Your task to perform on an android device: create a new album in the google photos Image 0: 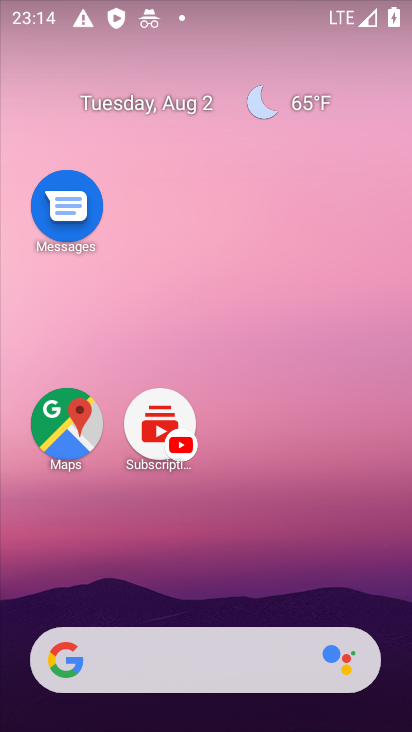
Step 0: drag from (232, 416) to (206, 221)
Your task to perform on an android device: create a new album in the google photos Image 1: 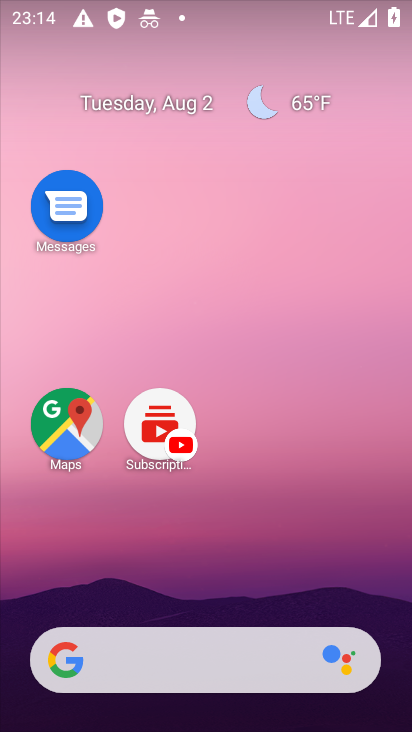
Step 1: drag from (218, 637) to (179, 300)
Your task to perform on an android device: create a new album in the google photos Image 2: 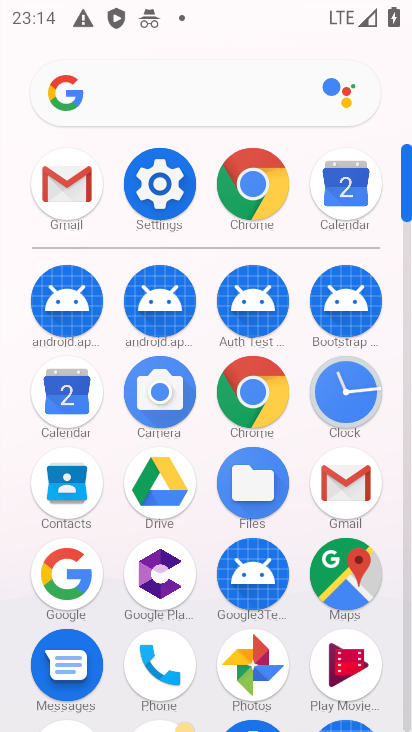
Step 2: click (254, 652)
Your task to perform on an android device: create a new album in the google photos Image 3: 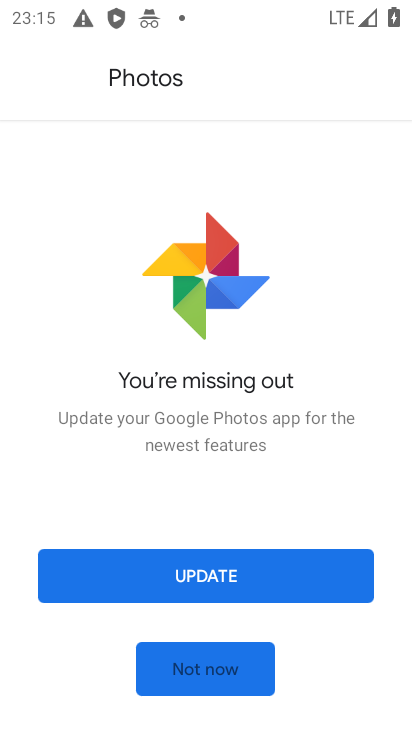
Step 3: click (213, 663)
Your task to perform on an android device: create a new album in the google photos Image 4: 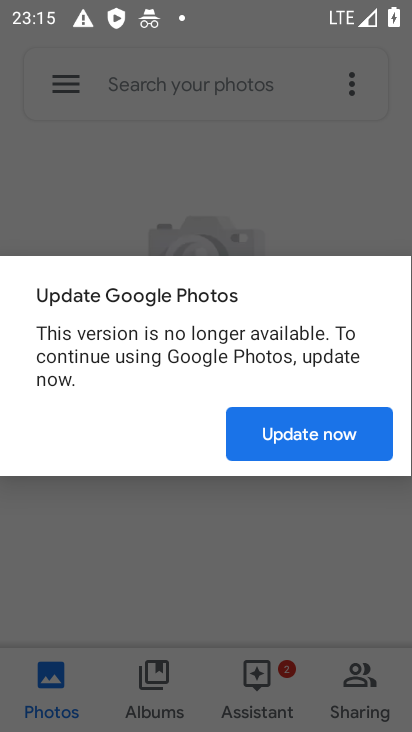
Step 4: click (292, 426)
Your task to perform on an android device: create a new album in the google photos Image 5: 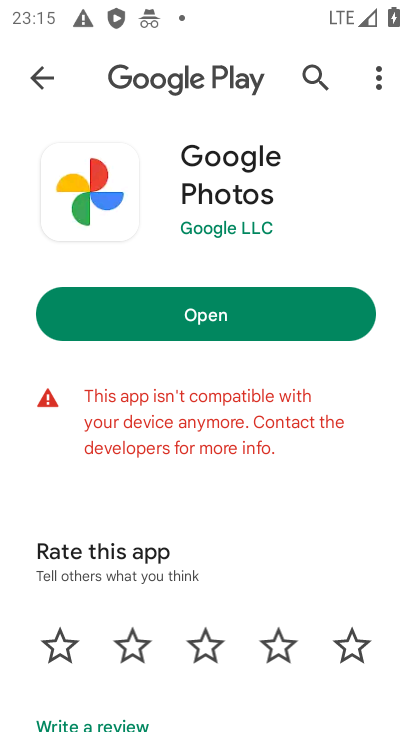
Step 5: click (200, 321)
Your task to perform on an android device: create a new album in the google photos Image 6: 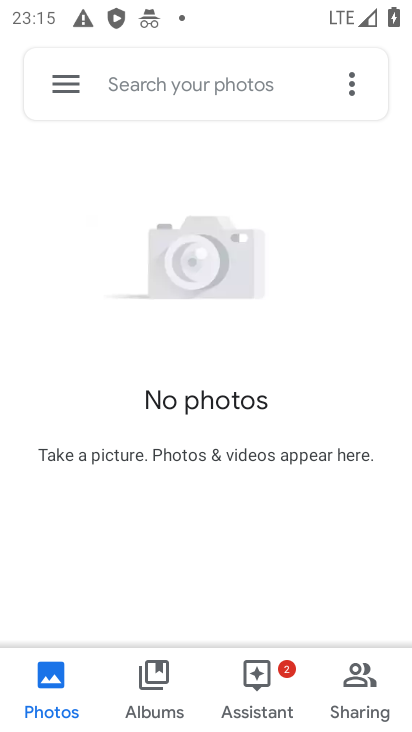
Step 6: click (157, 694)
Your task to perform on an android device: create a new album in the google photos Image 7: 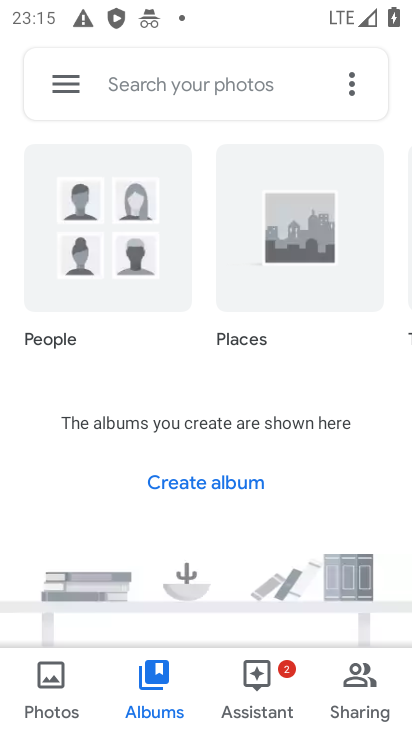
Step 7: drag from (211, 571) to (199, 271)
Your task to perform on an android device: create a new album in the google photos Image 8: 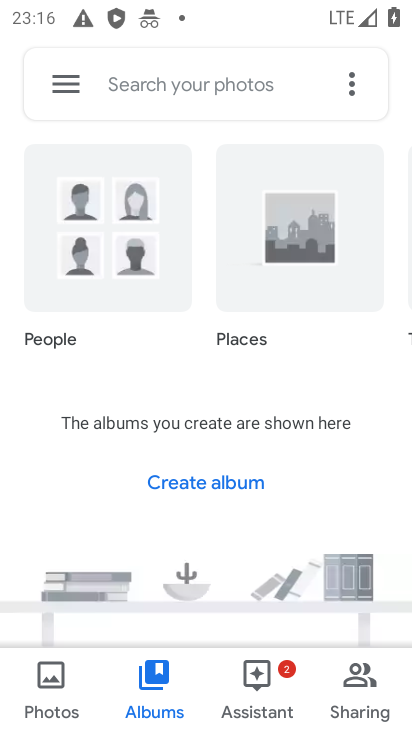
Step 8: drag from (193, 508) to (184, 315)
Your task to perform on an android device: create a new album in the google photos Image 9: 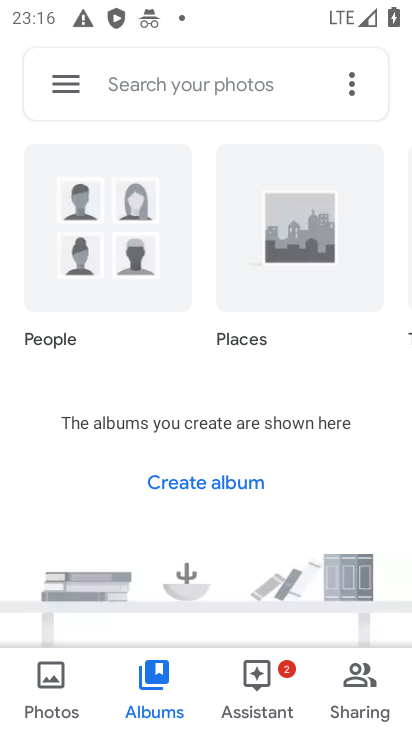
Step 9: click (187, 474)
Your task to perform on an android device: create a new album in the google photos Image 10: 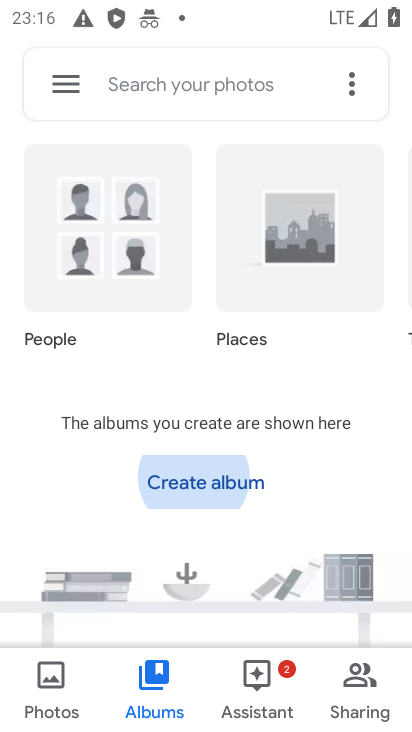
Step 10: click (187, 474)
Your task to perform on an android device: create a new album in the google photos Image 11: 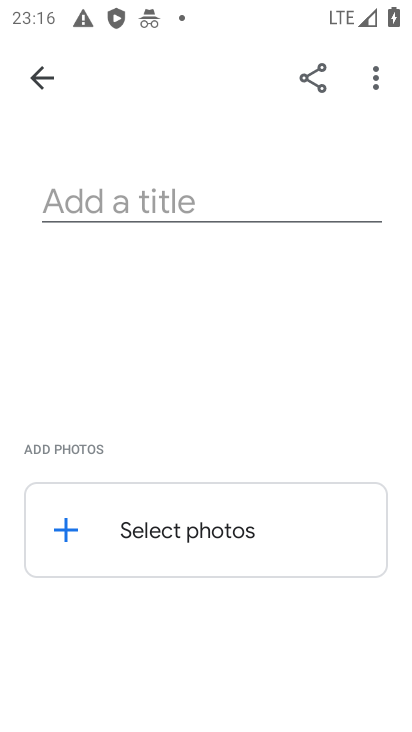
Step 11: click (157, 528)
Your task to perform on an android device: create a new album in the google photos Image 12: 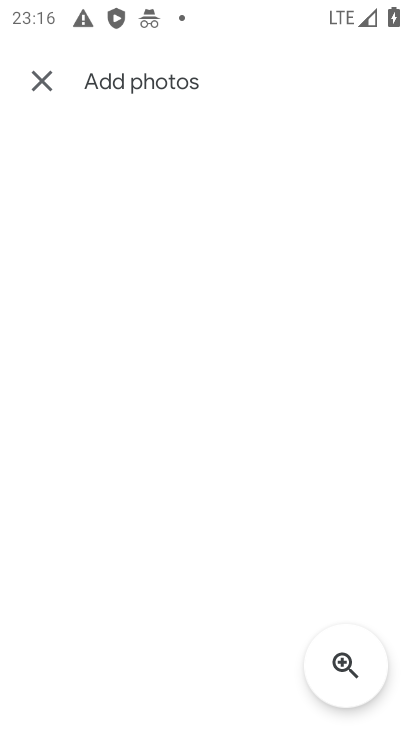
Step 12: click (122, 80)
Your task to perform on an android device: create a new album in the google photos Image 13: 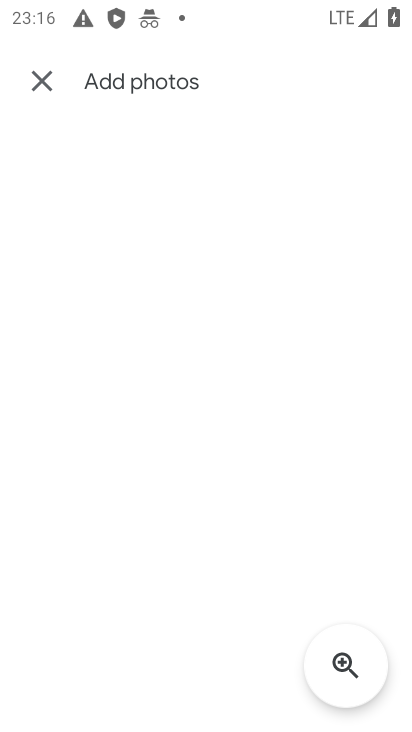
Step 13: click (123, 79)
Your task to perform on an android device: create a new album in the google photos Image 14: 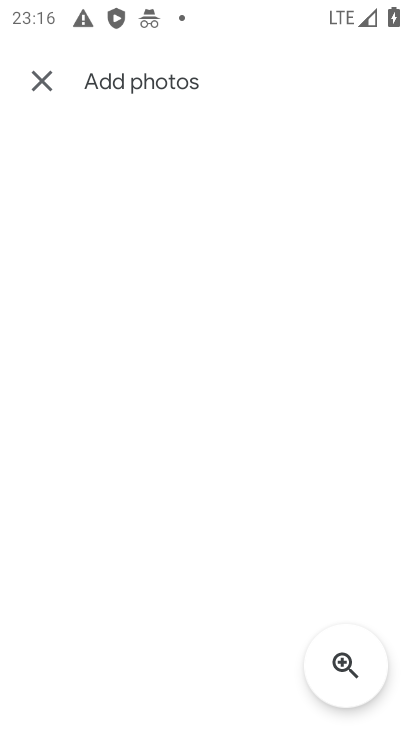
Step 14: task complete